Your task to perform on an android device: Open Youtube and go to the subscriptions tab Image 0: 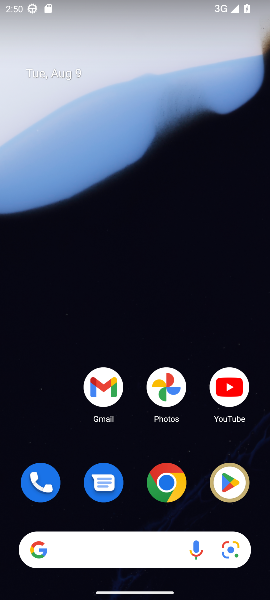
Step 0: click (230, 398)
Your task to perform on an android device: Open Youtube and go to the subscriptions tab Image 1: 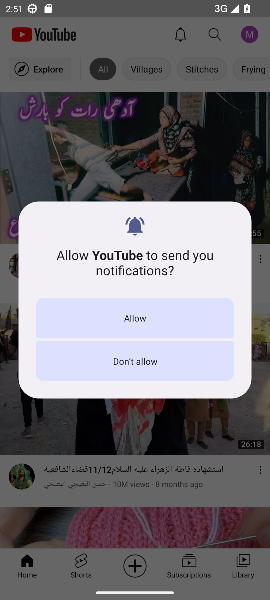
Step 1: click (152, 321)
Your task to perform on an android device: Open Youtube and go to the subscriptions tab Image 2: 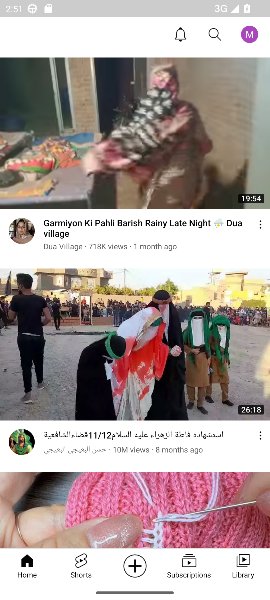
Step 2: click (188, 547)
Your task to perform on an android device: Open Youtube and go to the subscriptions tab Image 3: 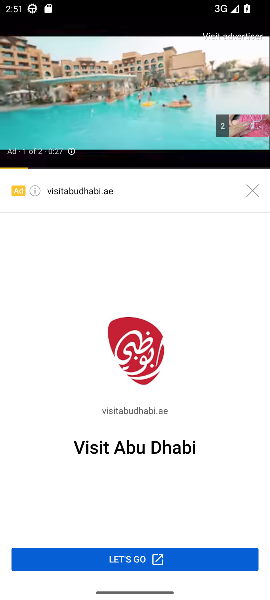
Step 3: press back button
Your task to perform on an android device: Open Youtube and go to the subscriptions tab Image 4: 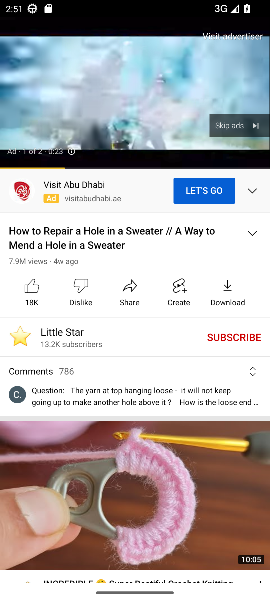
Step 4: press back button
Your task to perform on an android device: Open Youtube and go to the subscriptions tab Image 5: 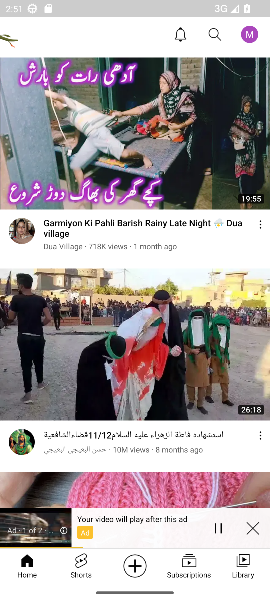
Step 5: click (249, 523)
Your task to perform on an android device: Open Youtube and go to the subscriptions tab Image 6: 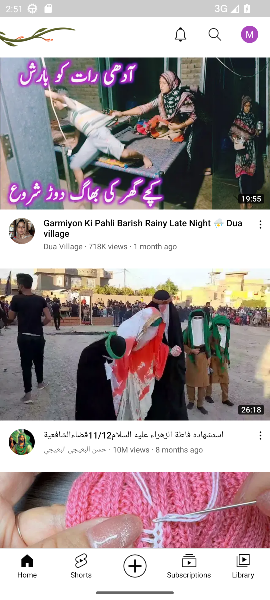
Step 6: click (194, 571)
Your task to perform on an android device: Open Youtube and go to the subscriptions tab Image 7: 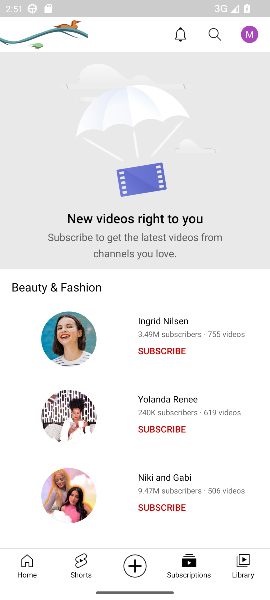
Step 7: task complete